Your task to perform on an android device: Search for Mexican restaurants on Maps Image 0: 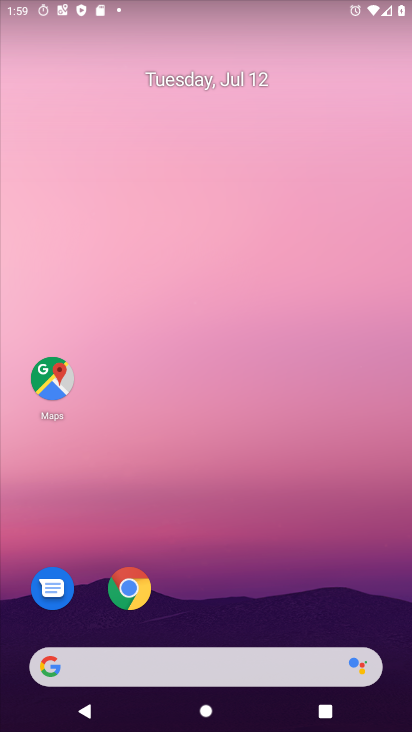
Step 0: click (256, 22)
Your task to perform on an android device: Search for Mexican restaurants on Maps Image 1: 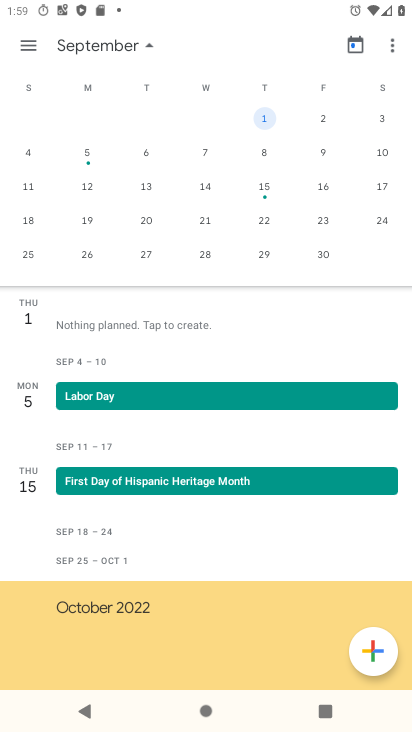
Step 1: drag from (226, 597) to (305, 125)
Your task to perform on an android device: Search for Mexican restaurants on Maps Image 2: 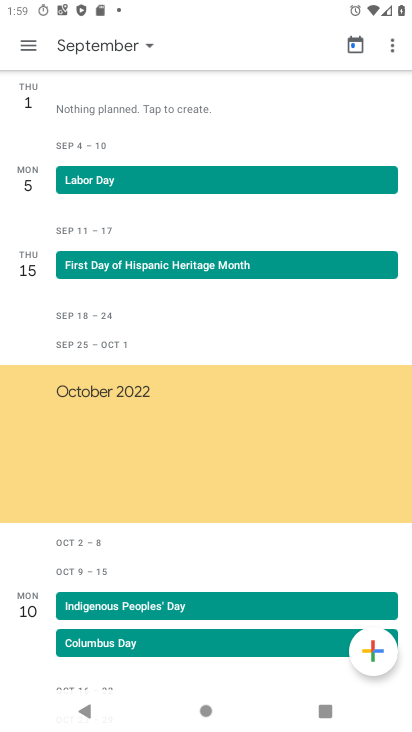
Step 2: press home button
Your task to perform on an android device: Search for Mexican restaurants on Maps Image 3: 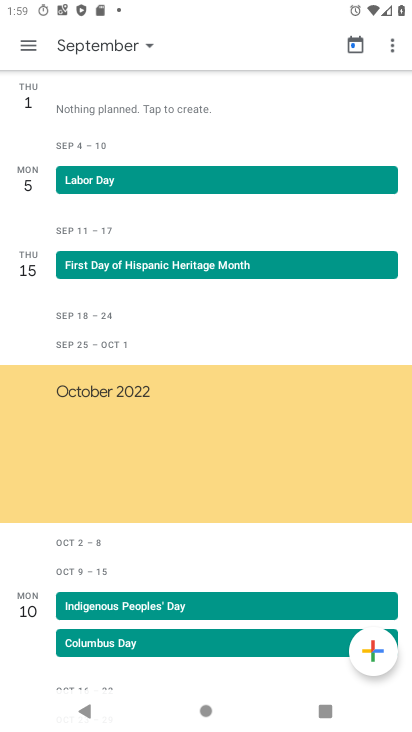
Step 3: drag from (192, 493) to (247, 44)
Your task to perform on an android device: Search for Mexican restaurants on Maps Image 4: 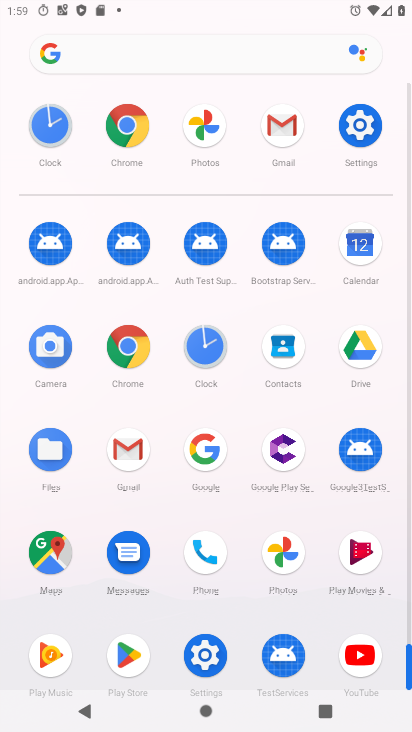
Step 4: click (42, 541)
Your task to perform on an android device: Search for Mexican restaurants on Maps Image 5: 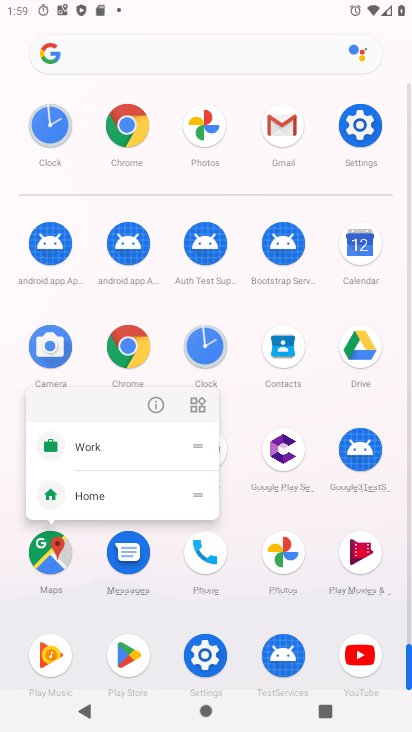
Step 5: click (157, 404)
Your task to perform on an android device: Search for Mexican restaurants on Maps Image 6: 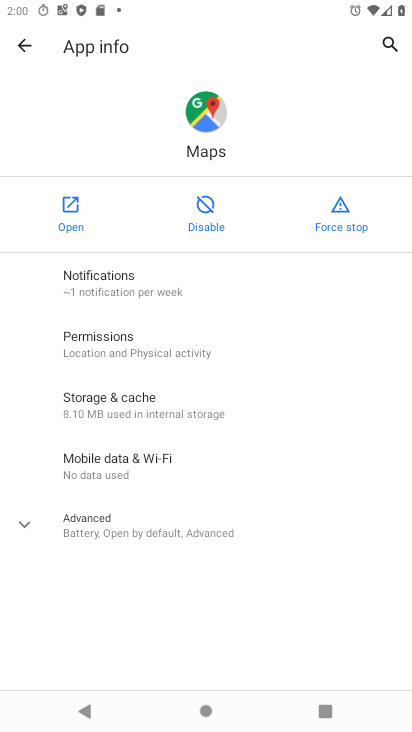
Step 6: click (75, 211)
Your task to perform on an android device: Search for Mexican restaurants on Maps Image 7: 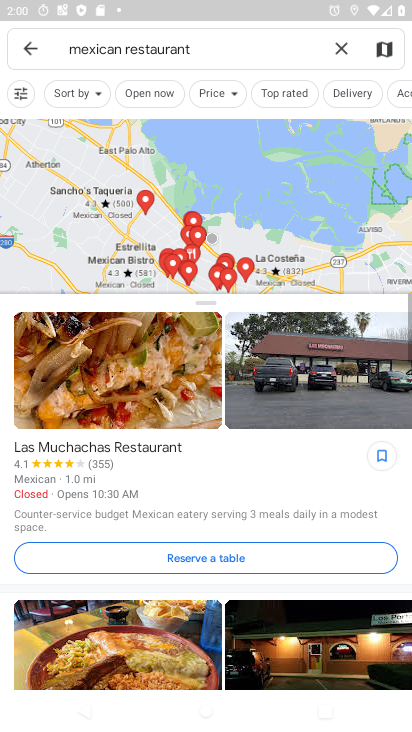
Step 7: task complete